Your task to perform on an android device: stop showing notifications on the lock screen Image 0: 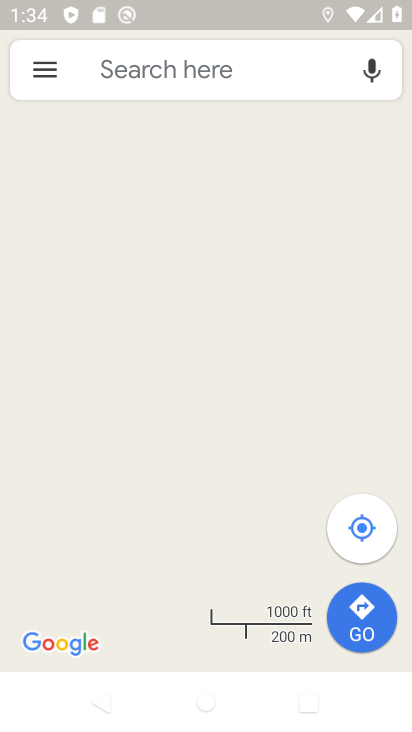
Step 0: press back button
Your task to perform on an android device: stop showing notifications on the lock screen Image 1: 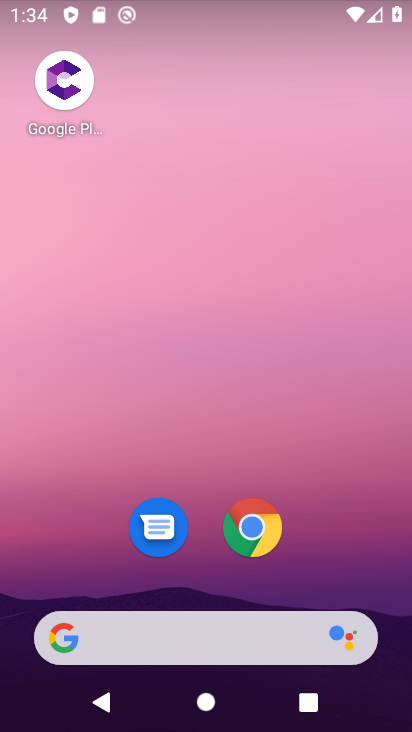
Step 1: drag from (65, 589) to (202, 38)
Your task to perform on an android device: stop showing notifications on the lock screen Image 2: 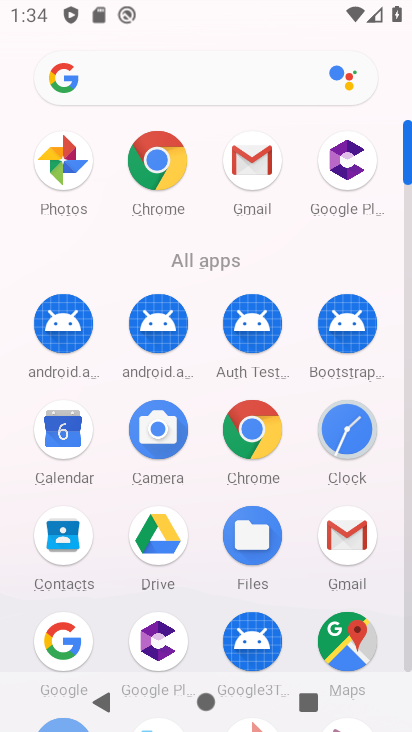
Step 2: drag from (153, 548) to (213, 285)
Your task to perform on an android device: stop showing notifications on the lock screen Image 3: 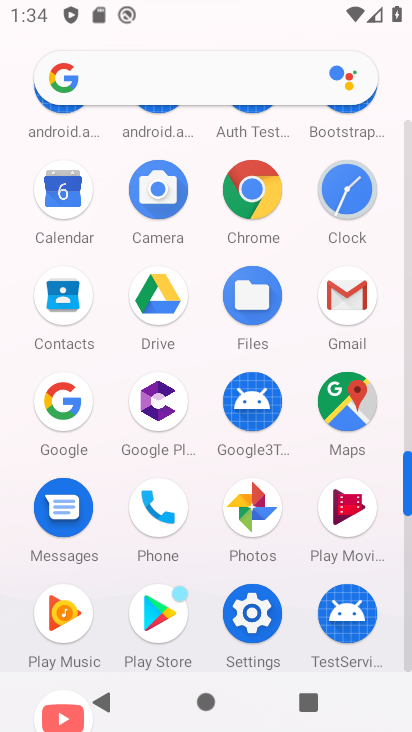
Step 3: click (250, 619)
Your task to perform on an android device: stop showing notifications on the lock screen Image 4: 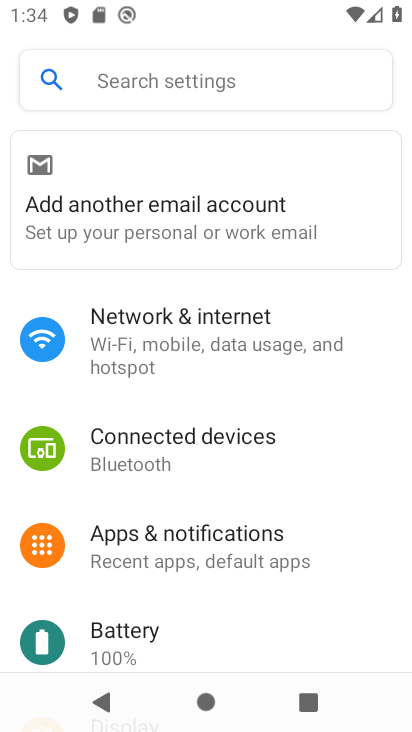
Step 4: drag from (208, 614) to (301, 200)
Your task to perform on an android device: stop showing notifications on the lock screen Image 5: 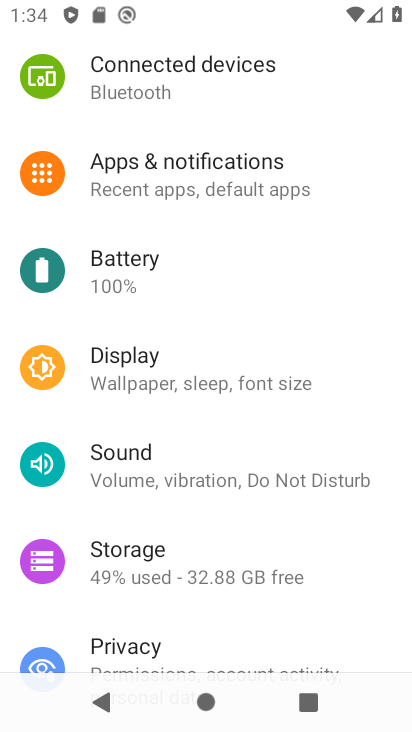
Step 5: drag from (205, 540) to (283, 235)
Your task to perform on an android device: stop showing notifications on the lock screen Image 6: 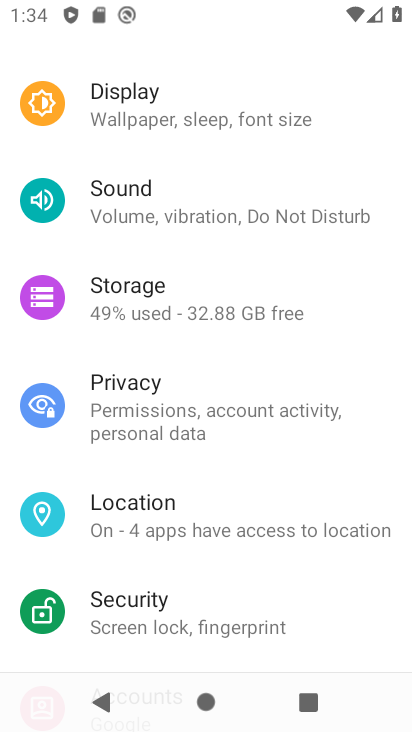
Step 6: drag from (231, 182) to (217, 399)
Your task to perform on an android device: stop showing notifications on the lock screen Image 7: 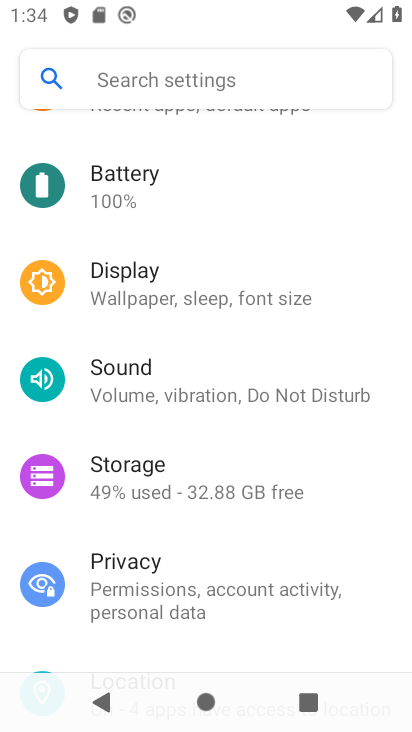
Step 7: drag from (152, 311) to (152, 403)
Your task to perform on an android device: stop showing notifications on the lock screen Image 8: 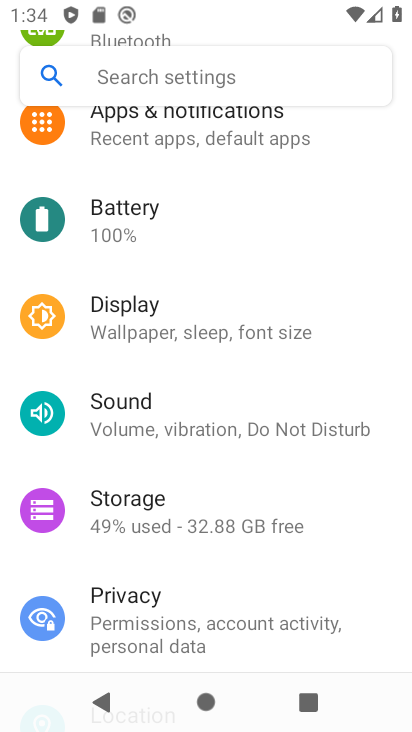
Step 8: click (185, 154)
Your task to perform on an android device: stop showing notifications on the lock screen Image 9: 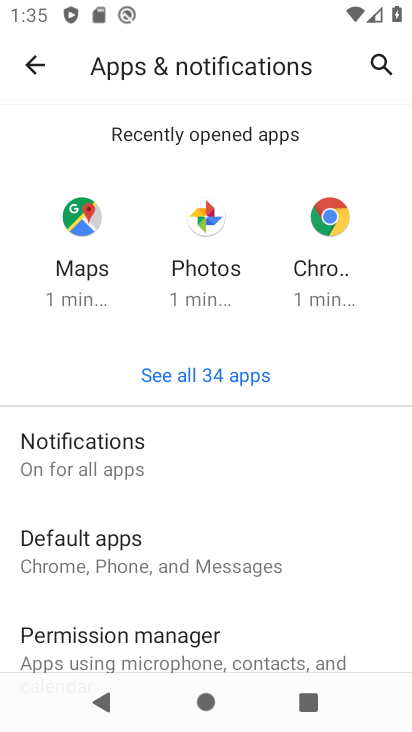
Step 9: drag from (161, 560) to (207, 390)
Your task to perform on an android device: stop showing notifications on the lock screen Image 10: 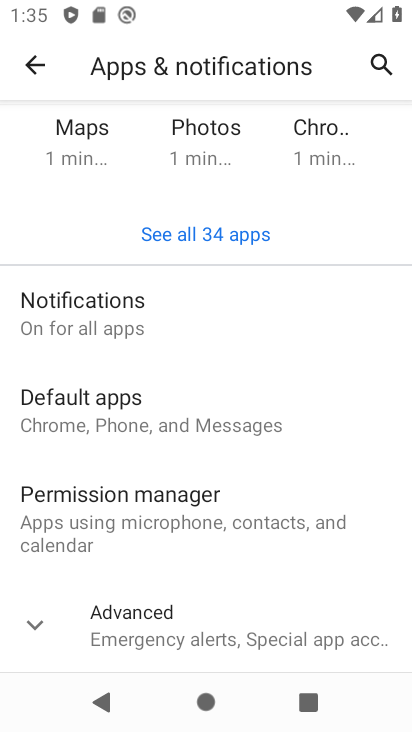
Step 10: click (190, 356)
Your task to perform on an android device: stop showing notifications on the lock screen Image 11: 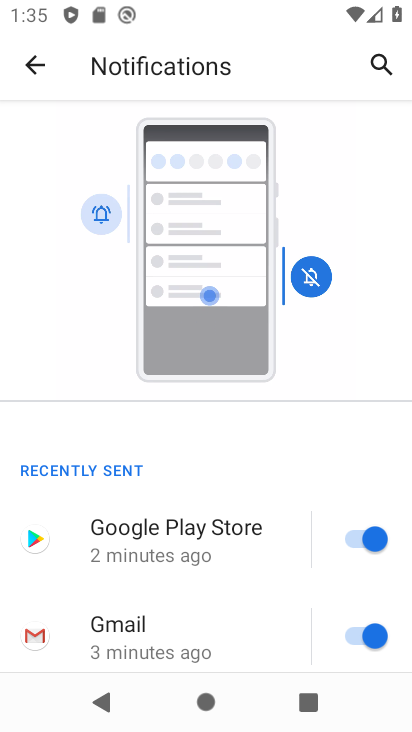
Step 11: drag from (194, 645) to (316, 108)
Your task to perform on an android device: stop showing notifications on the lock screen Image 12: 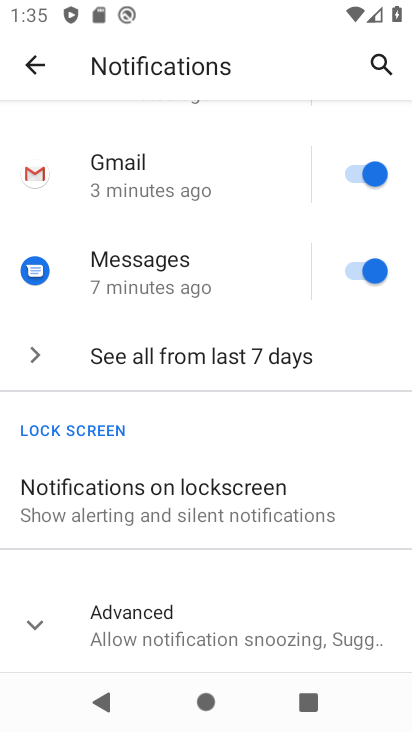
Step 12: click (197, 500)
Your task to perform on an android device: stop showing notifications on the lock screen Image 13: 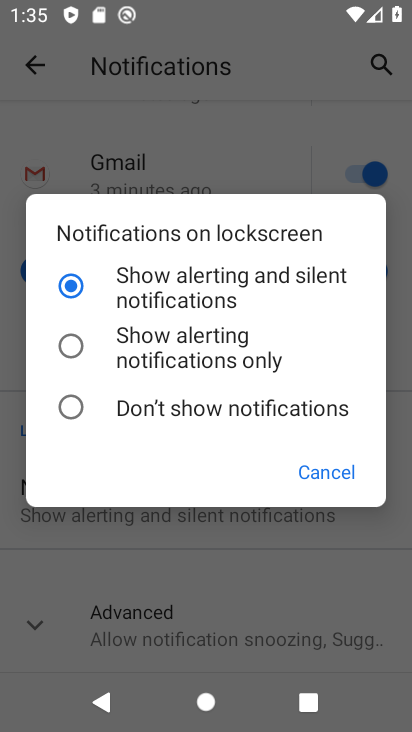
Step 13: click (176, 417)
Your task to perform on an android device: stop showing notifications on the lock screen Image 14: 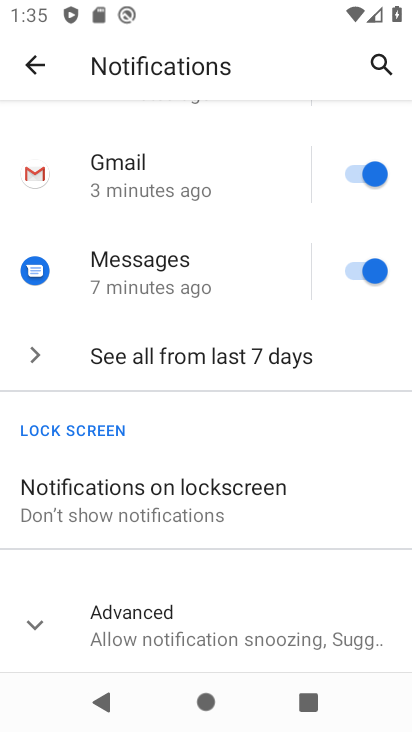
Step 14: task complete